Your task to perform on an android device: Toggle the flashlight Image 0: 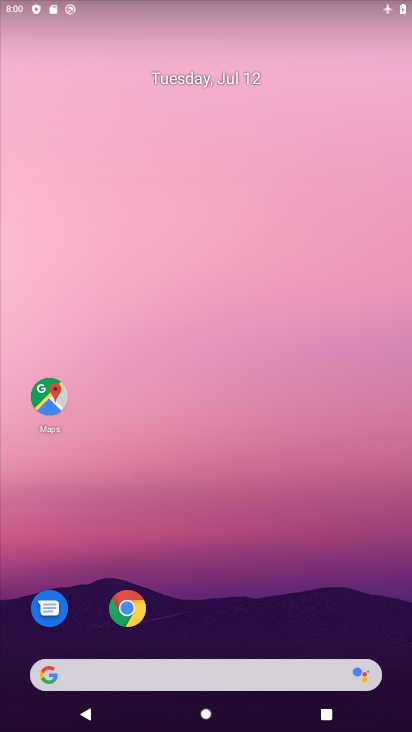
Step 0: drag from (179, 643) to (127, 140)
Your task to perform on an android device: Toggle the flashlight Image 1: 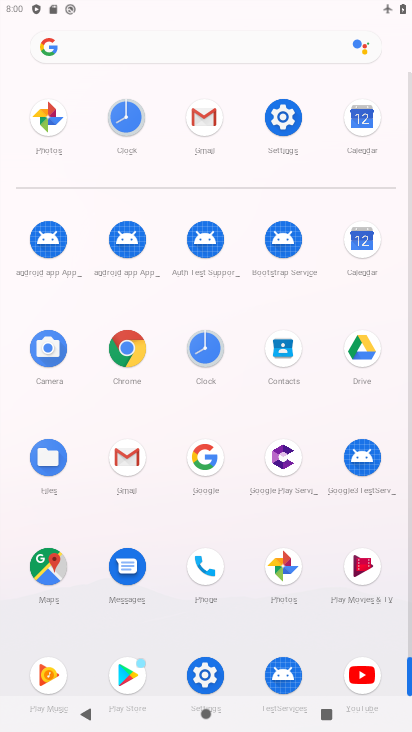
Step 1: click (287, 134)
Your task to perform on an android device: Toggle the flashlight Image 2: 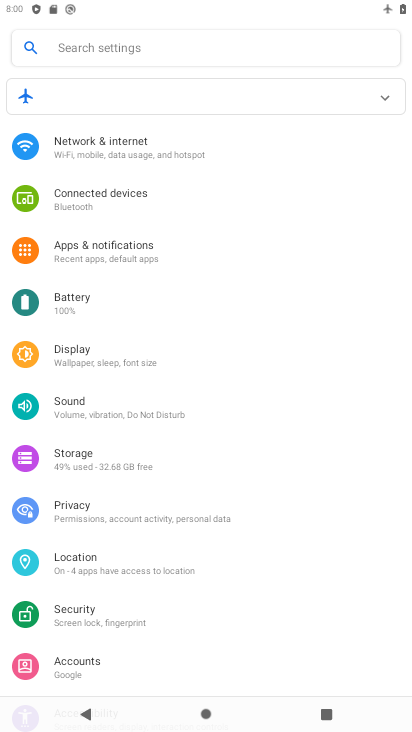
Step 2: task complete